Your task to perform on an android device: turn pop-ups off in chrome Image 0: 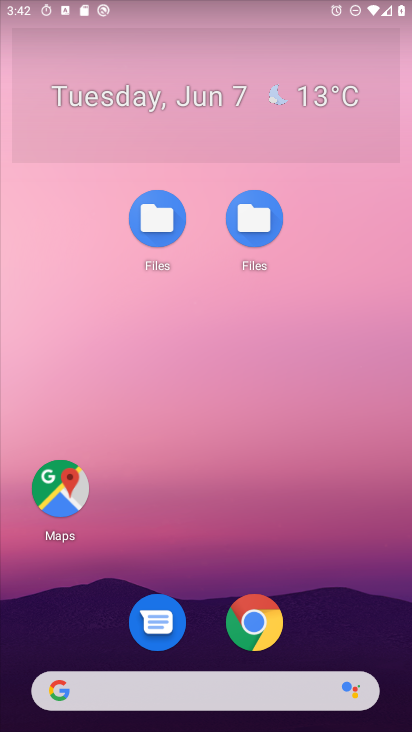
Step 0: click (255, 618)
Your task to perform on an android device: turn pop-ups off in chrome Image 1: 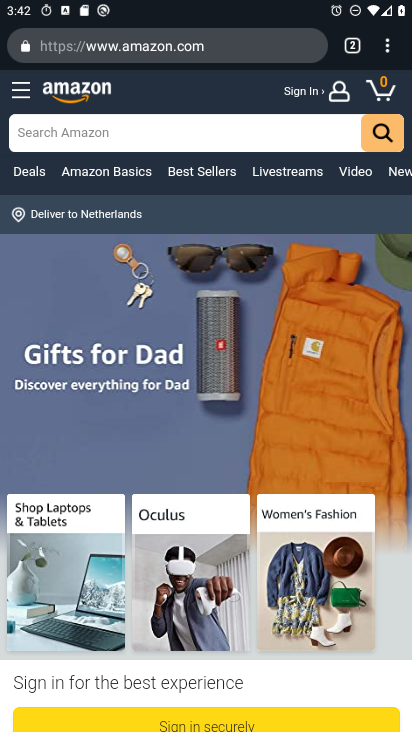
Step 1: click (387, 55)
Your task to perform on an android device: turn pop-ups off in chrome Image 2: 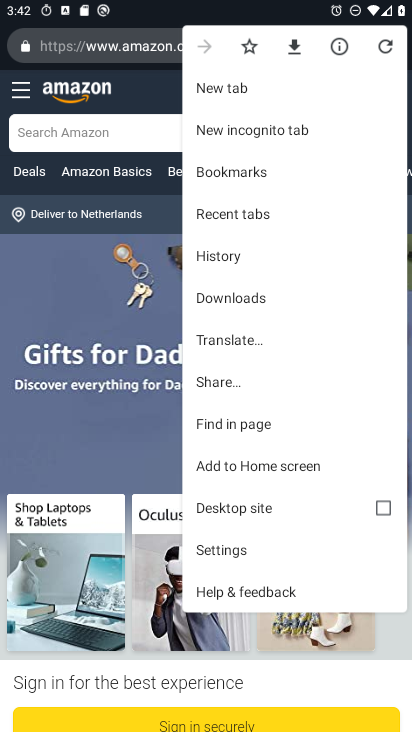
Step 2: click (259, 547)
Your task to perform on an android device: turn pop-ups off in chrome Image 3: 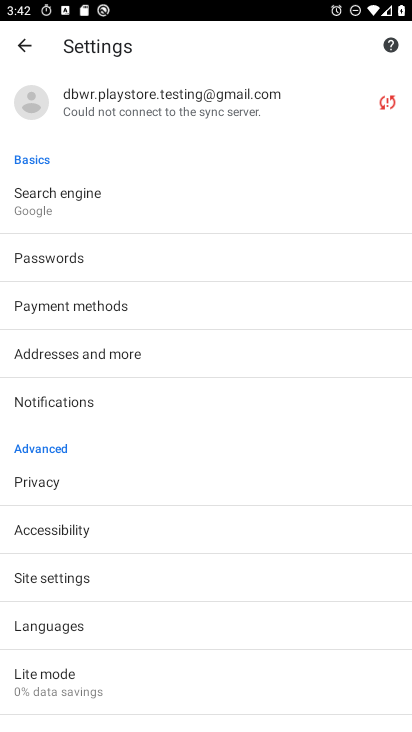
Step 3: click (181, 584)
Your task to perform on an android device: turn pop-ups off in chrome Image 4: 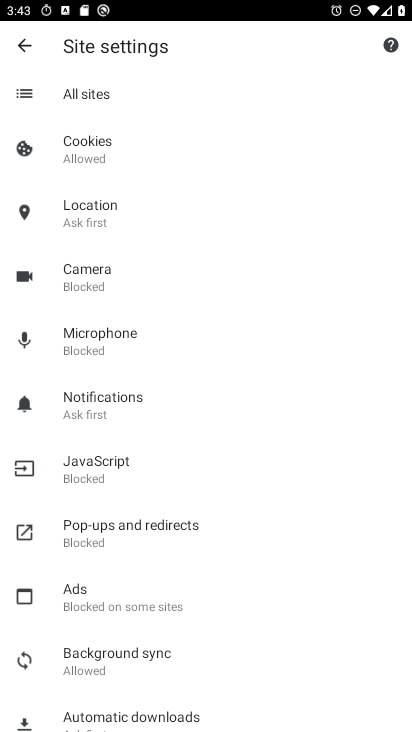
Step 4: click (137, 527)
Your task to perform on an android device: turn pop-ups off in chrome Image 5: 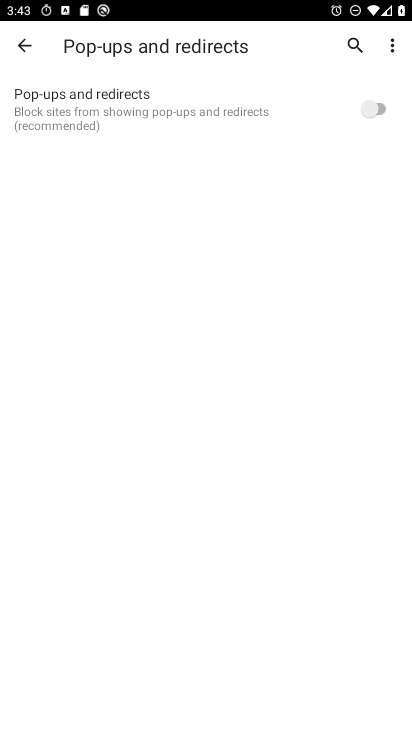
Step 5: task complete